Your task to perform on an android device: Search for sushi restaurants on Maps Image 0: 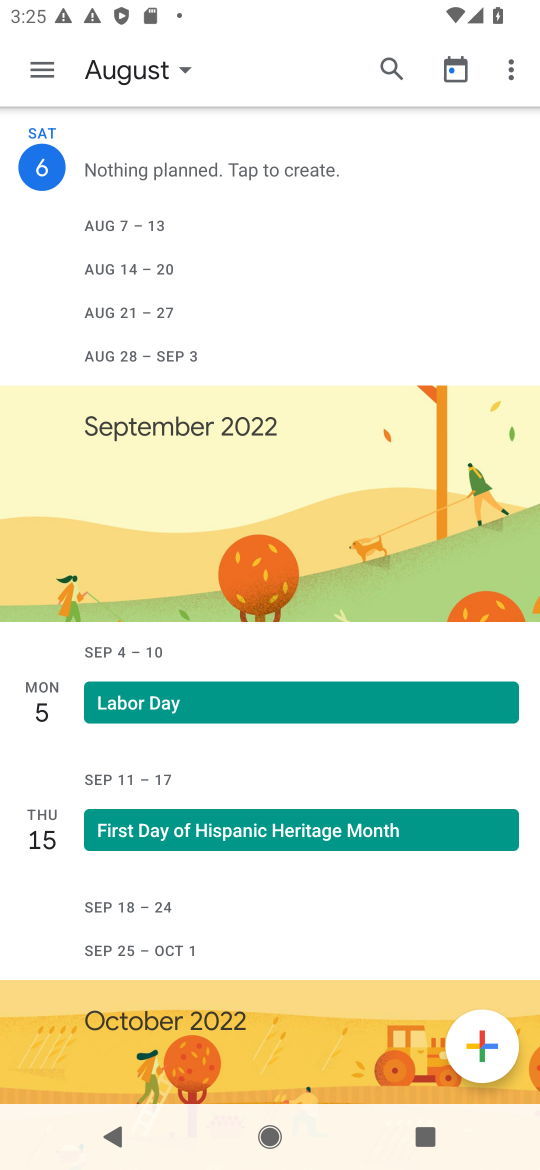
Step 0: press home button
Your task to perform on an android device: Search for sushi restaurants on Maps Image 1: 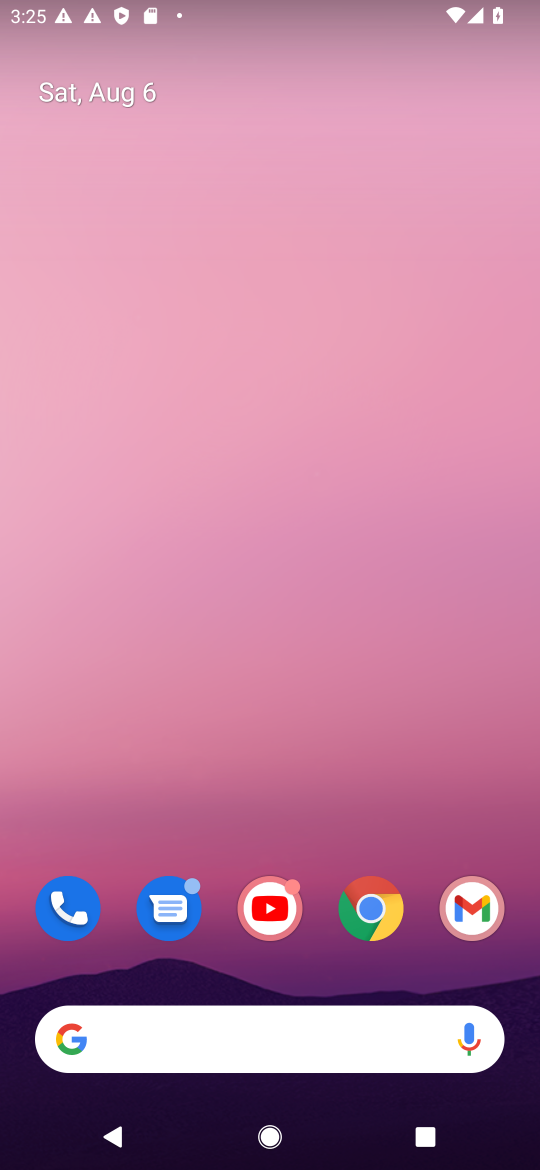
Step 1: drag from (257, 779) to (273, 359)
Your task to perform on an android device: Search for sushi restaurants on Maps Image 2: 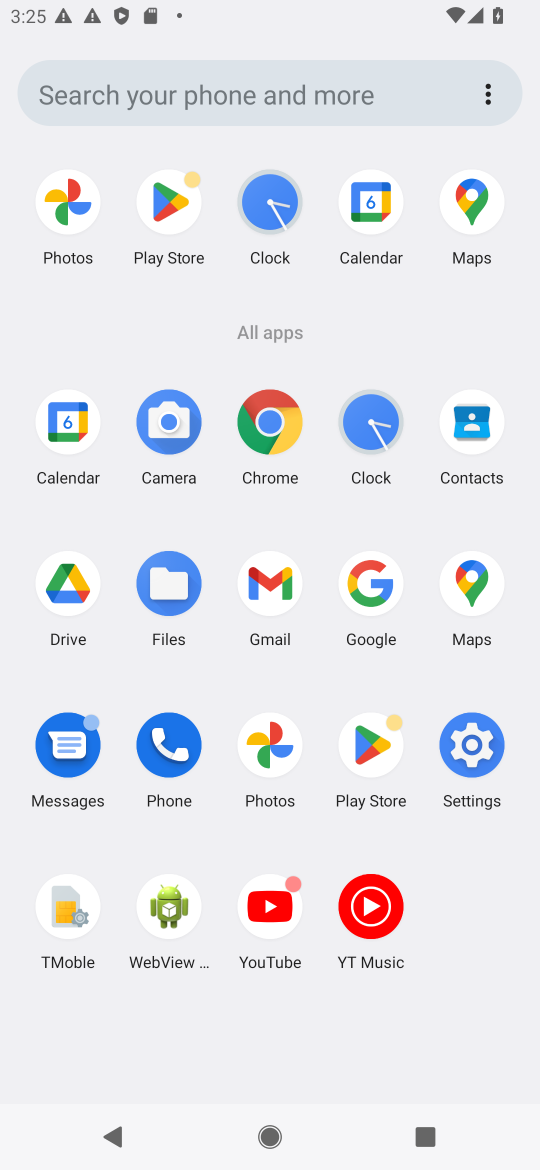
Step 2: click (466, 601)
Your task to perform on an android device: Search for sushi restaurants on Maps Image 3: 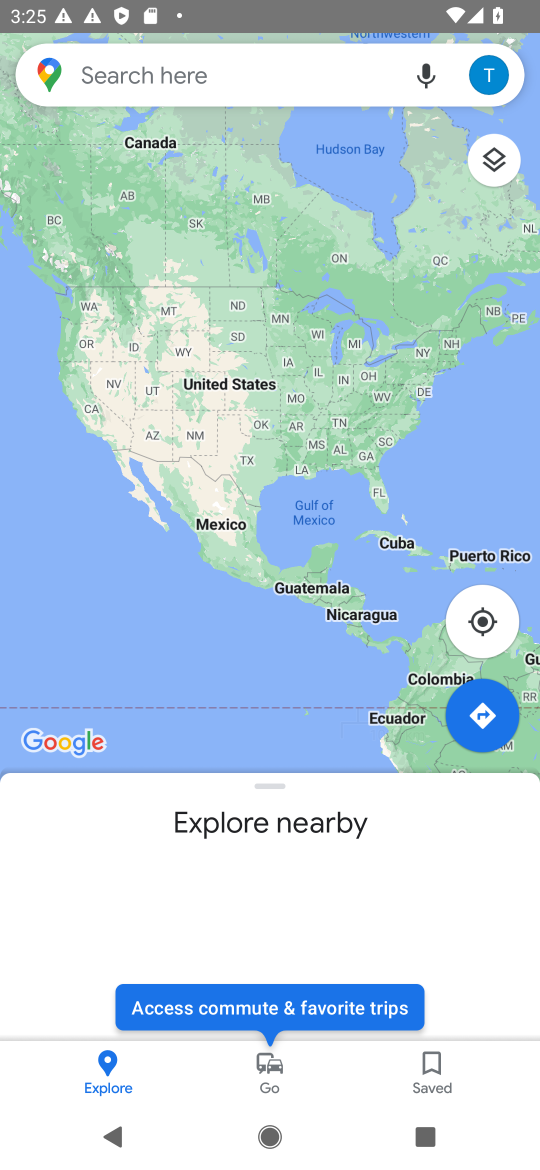
Step 3: click (225, 81)
Your task to perform on an android device: Search for sushi restaurants on Maps Image 4: 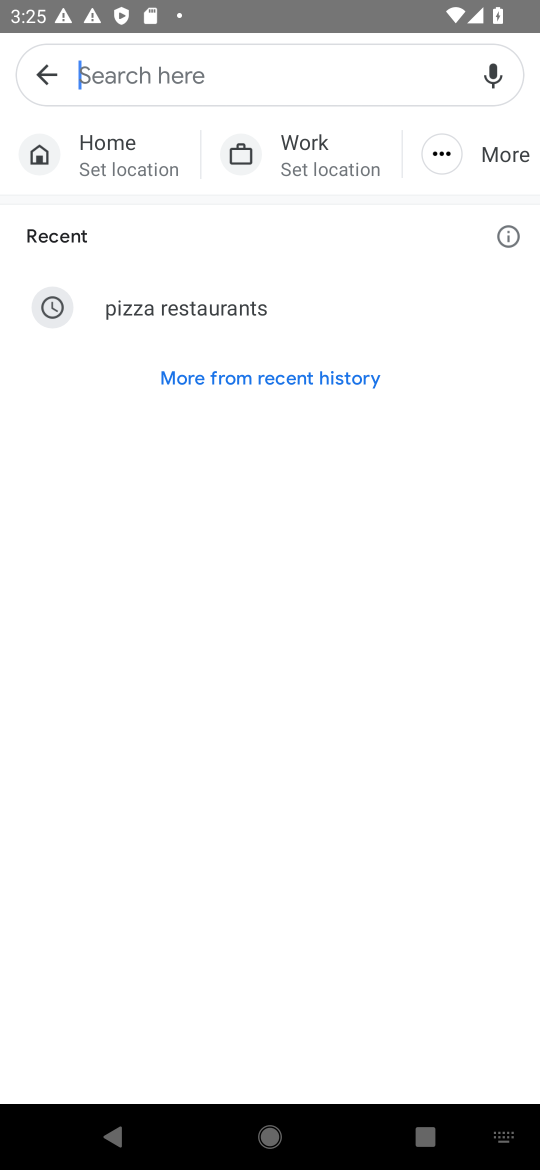
Step 4: type "sushi restaurants"
Your task to perform on an android device: Search for sushi restaurants on Maps Image 5: 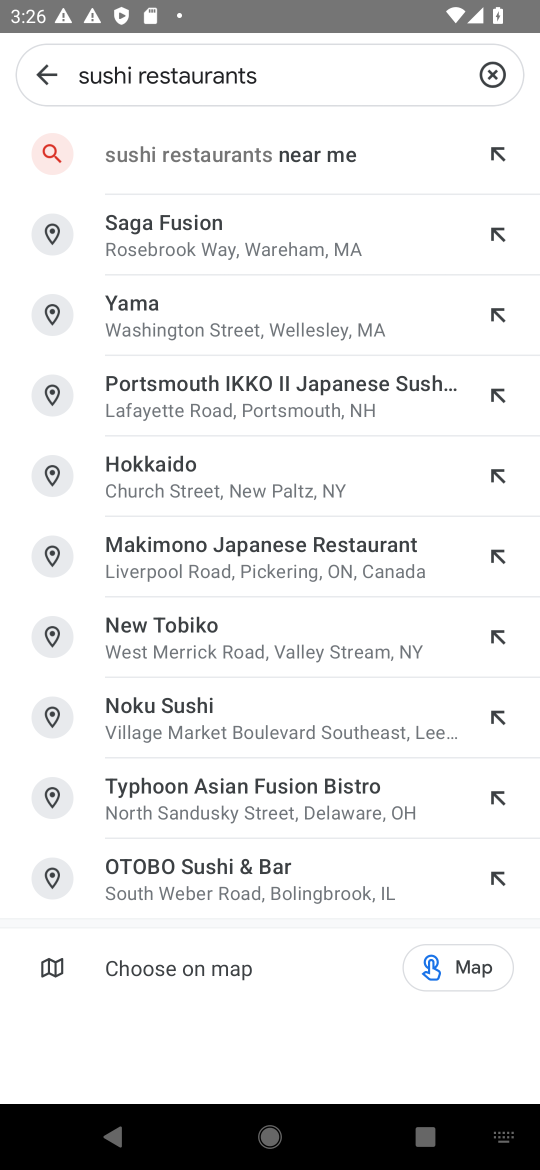
Step 5: click (160, 153)
Your task to perform on an android device: Search for sushi restaurants on Maps Image 6: 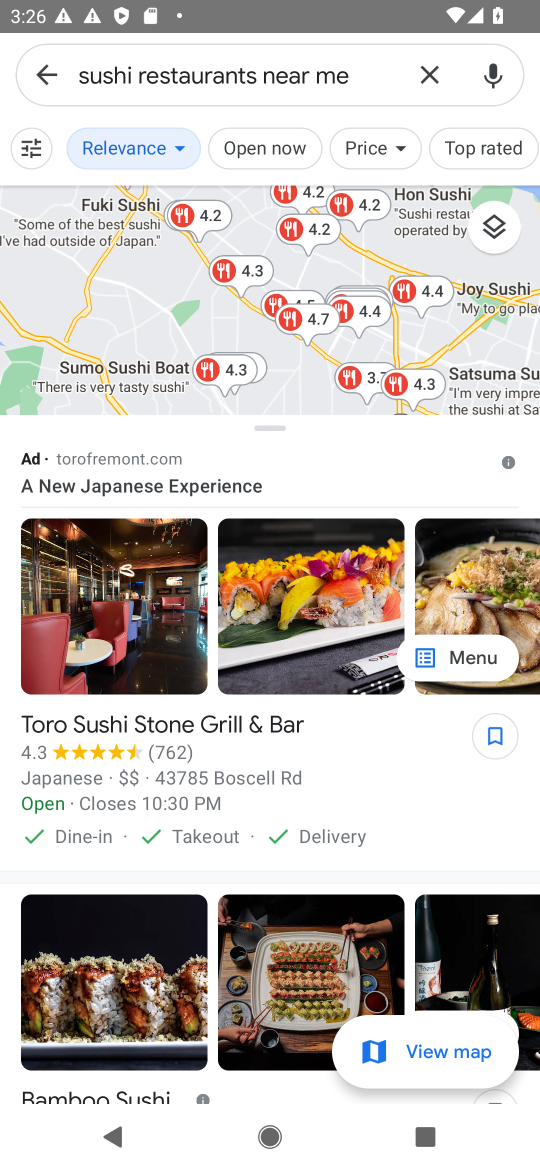
Step 6: task complete